Your task to perform on an android device: What's the weather going to be this weekend? Image 0: 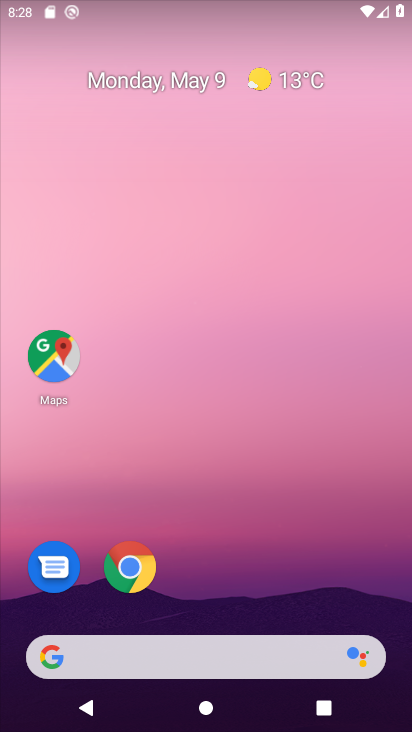
Step 0: click (266, 69)
Your task to perform on an android device: What's the weather going to be this weekend? Image 1: 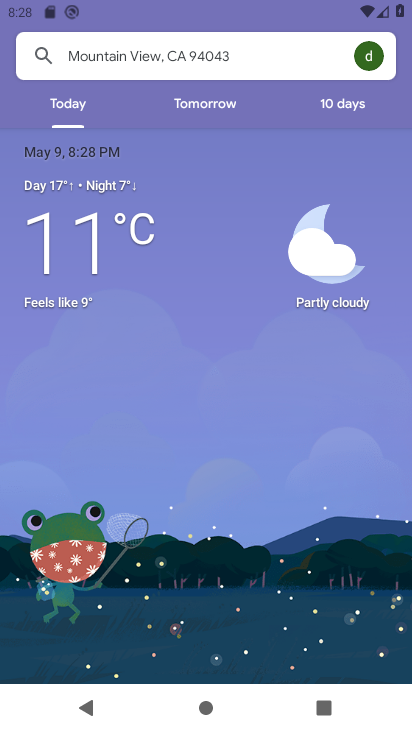
Step 1: click (339, 110)
Your task to perform on an android device: What's the weather going to be this weekend? Image 2: 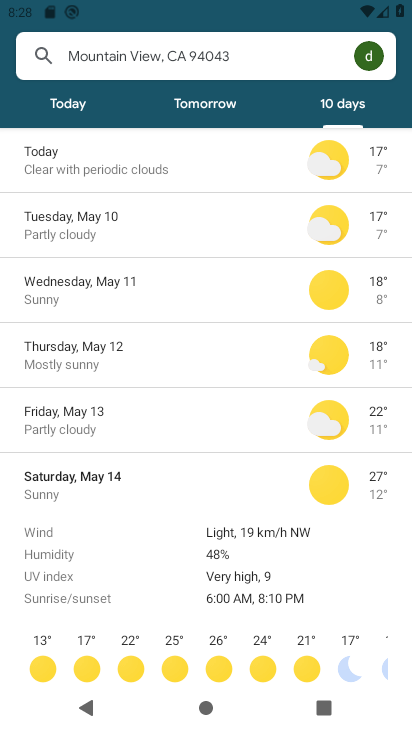
Step 2: click (53, 481)
Your task to perform on an android device: What's the weather going to be this weekend? Image 3: 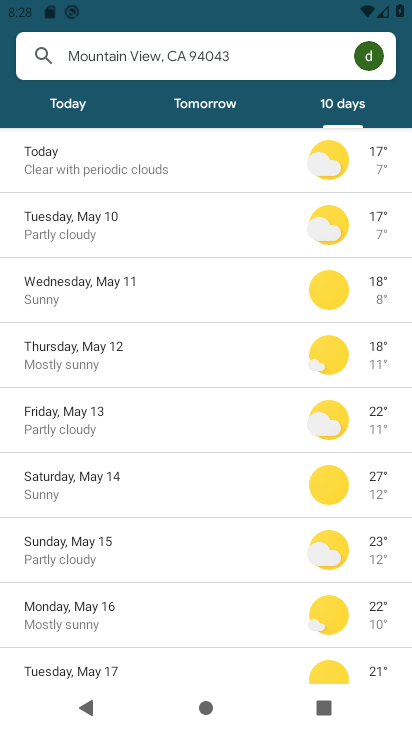
Step 3: click (53, 483)
Your task to perform on an android device: What's the weather going to be this weekend? Image 4: 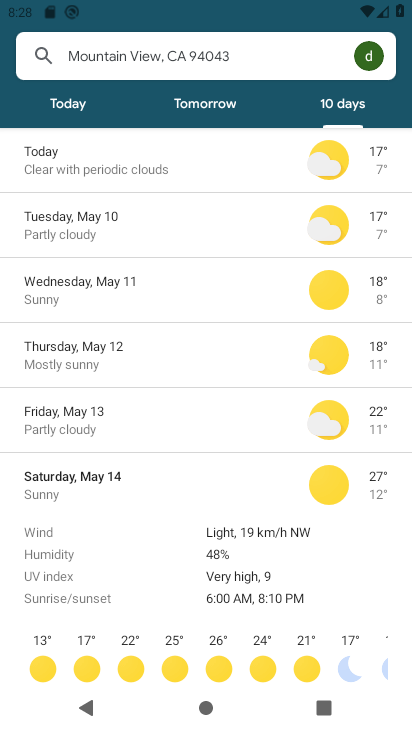
Step 4: task complete